Your task to perform on an android device: change the clock display to digital Image 0: 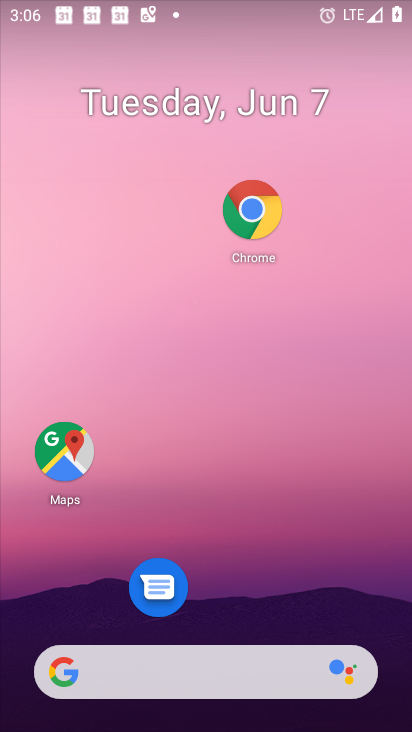
Step 0: drag from (267, 578) to (279, 290)
Your task to perform on an android device: change the clock display to digital Image 1: 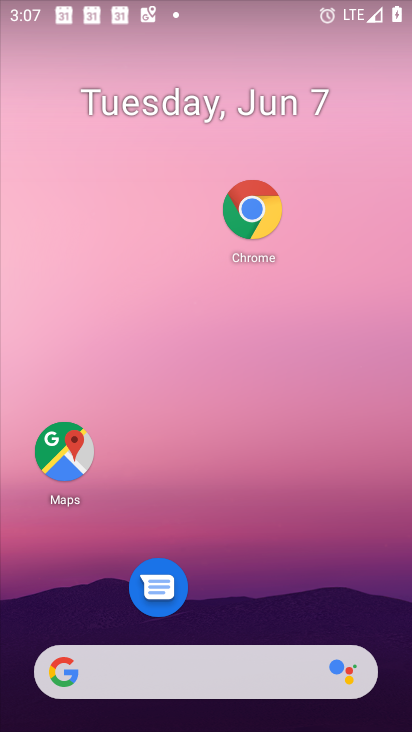
Step 1: drag from (266, 656) to (292, 2)
Your task to perform on an android device: change the clock display to digital Image 2: 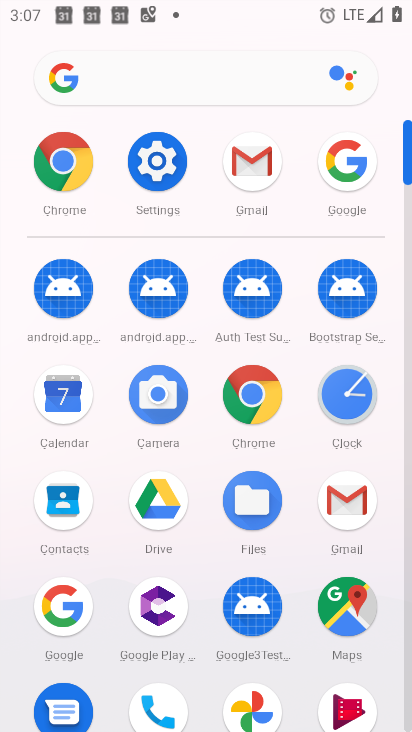
Step 2: click (345, 380)
Your task to perform on an android device: change the clock display to digital Image 3: 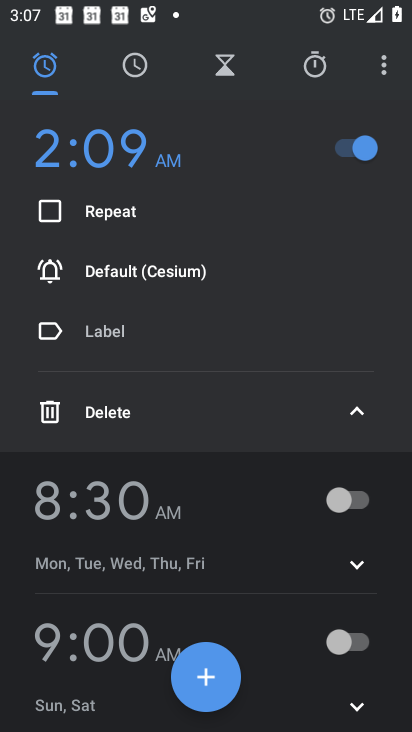
Step 3: click (378, 63)
Your task to perform on an android device: change the clock display to digital Image 4: 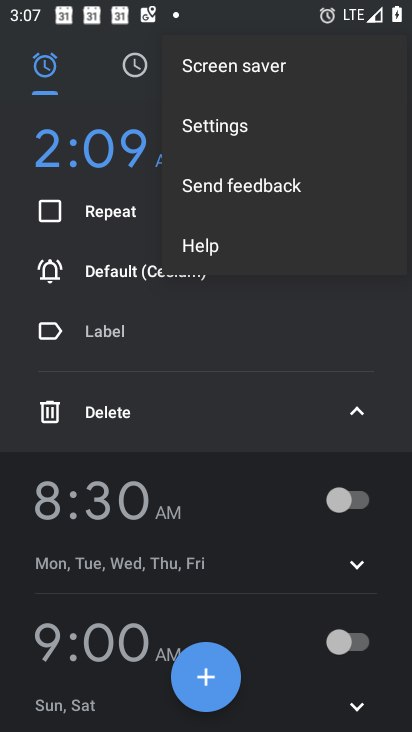
Step 4: click (248, 138)
Your task to perform on an android device: change the clock display to digital Image 5: 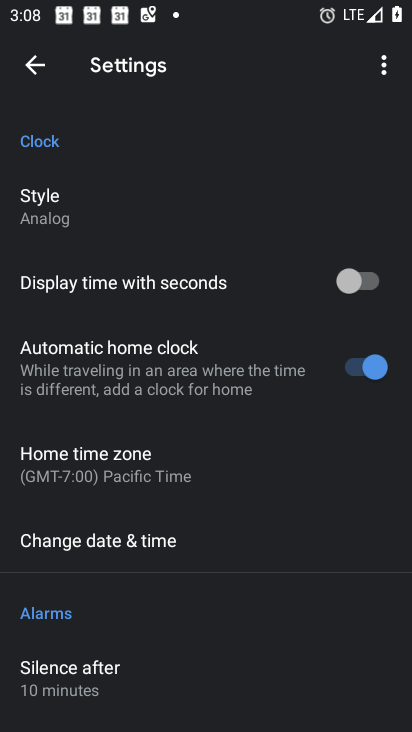
Step 5: click (164, 223)
Your task to perform on an android device: change the clock display to digital Image 6: 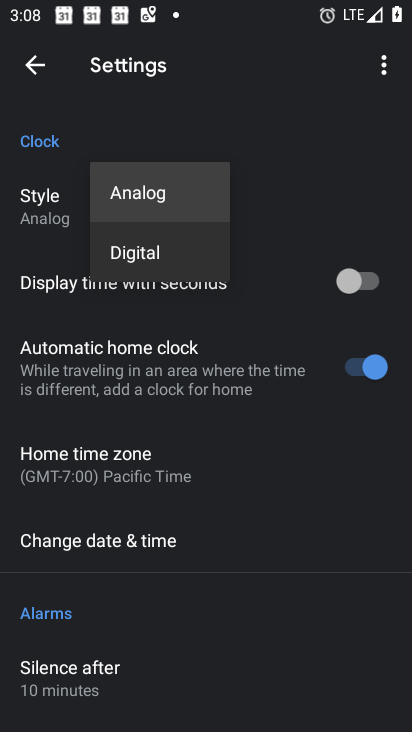
Step 6: click (156, 274)
Your task to perform on an android device: change the clock display to digital Image 7: 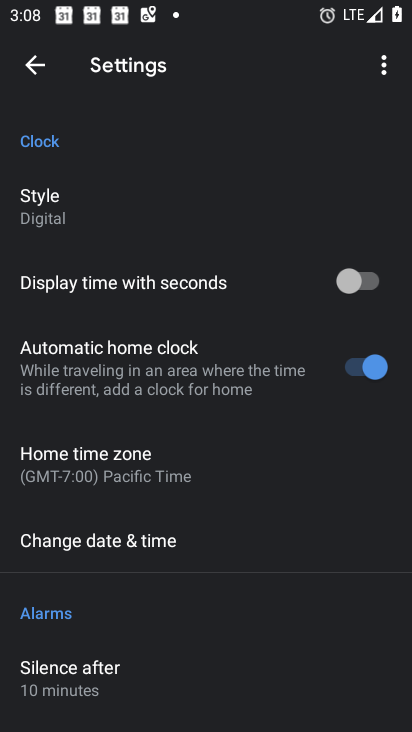
Step 7: task complete